Your task to perform on an android device: Set the phone to "Do not disturb". Image 0: 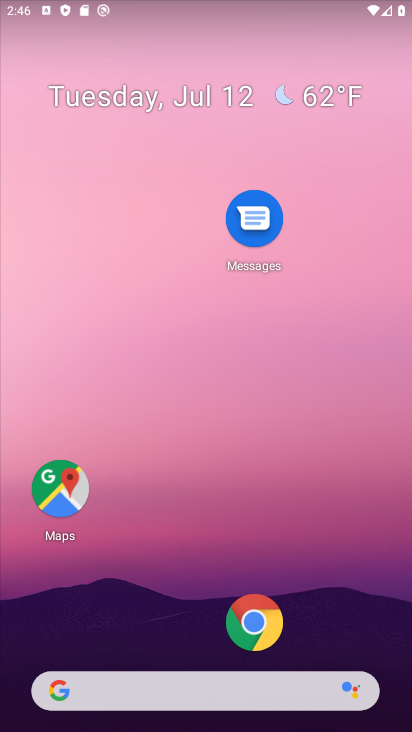
Step 0: drag from (139, 3) to (108, 387)
Your task to perform on an android device: Set the phone to "Do not disturb". Image 1: 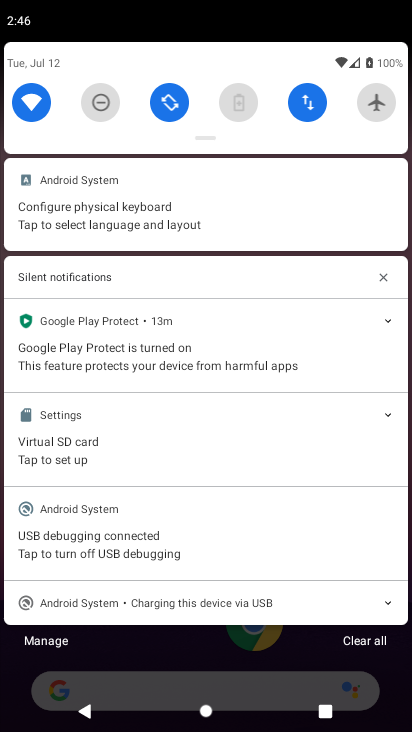
Step 1: click (100, 98)
Your task to perform on an android device: Set the phone to "Do not disturb". Image 2: 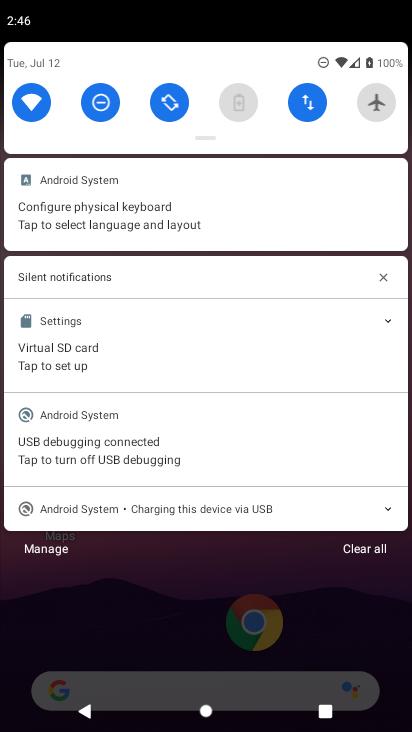
Step 2: task complete